Your task to perform on an android device: show emergency info Image 0: 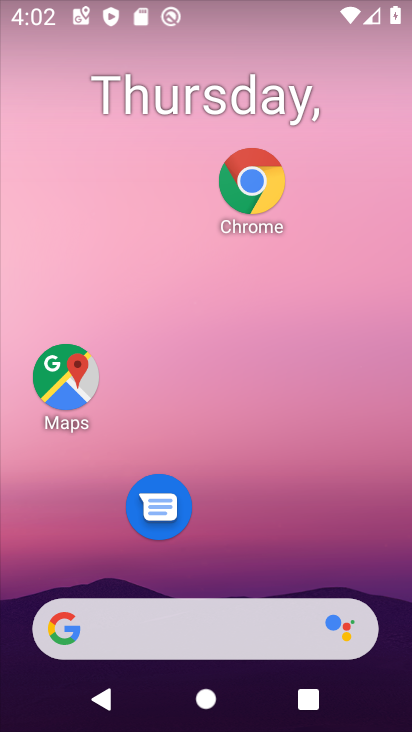
Step 0: drag from (258, 490) to (258, 183)
Your task to perform on an android device: show emergency info Image 1: 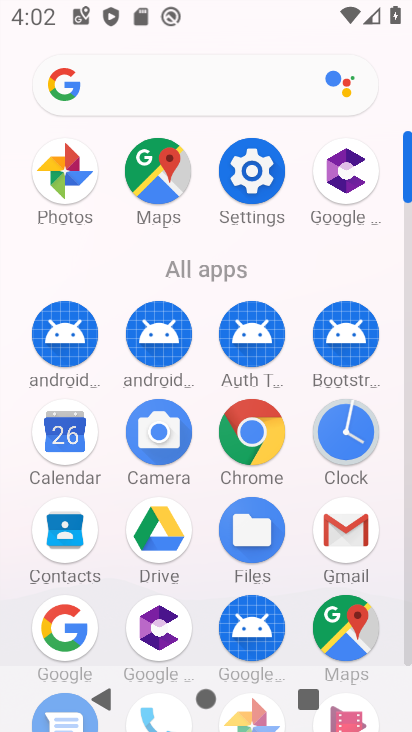
Step 1: click (259, 162)
Your task to perform on an android device: show emergency info Image 2: 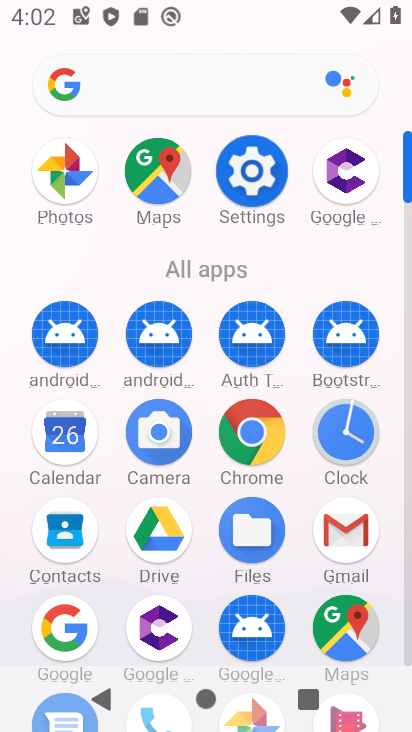
Step 2: click (258, 164)
Your task to perform on an android device: show emergency info Image 3: 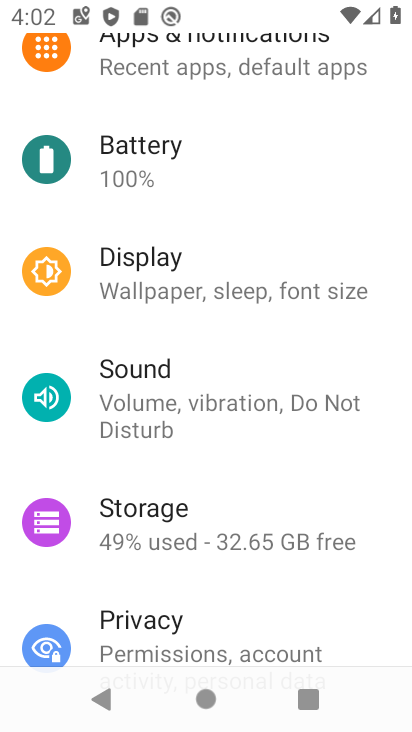
Step 3: drag from (173, 484) to (159, 131)
Your task to perform on an android device: show emergency info Image 4: 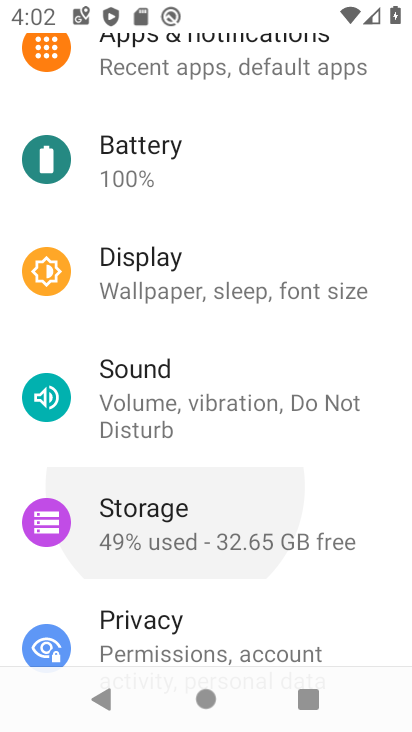
Step 4: drag from (177, 483) to (178, 134)
Your task to perform on an android device: show emergency info Image 5: 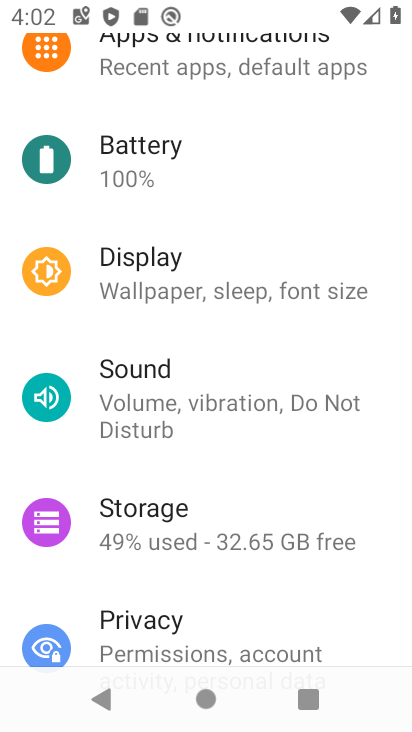
Step 5: drag from (182, 176) to (182, 136)
Your task to perform on an android device: show emergency info Image 6: 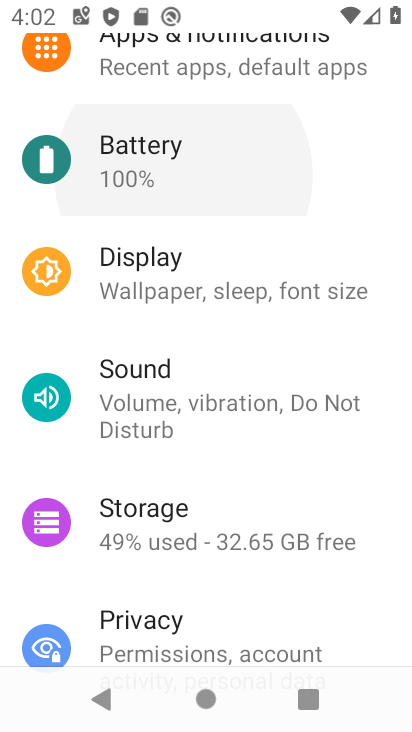
Step 6: drag from (199, 448) to (202, 138)
Your task to perform on an android device: show emergency info Image 7: 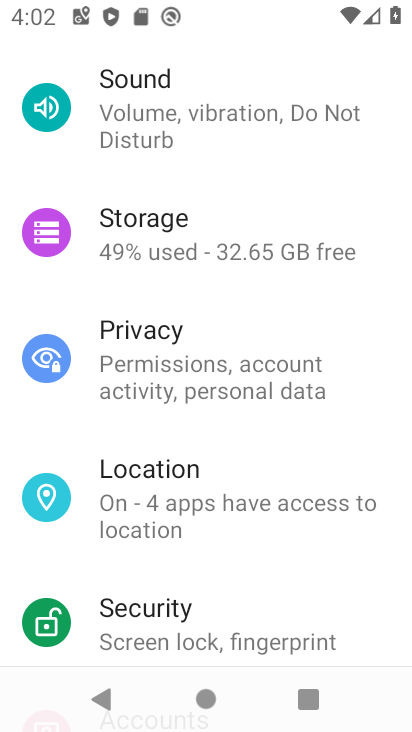
Step 7: drag from (210, 347) to (210, 218)
Your task to perform on an android device: show emergency info Image 8: 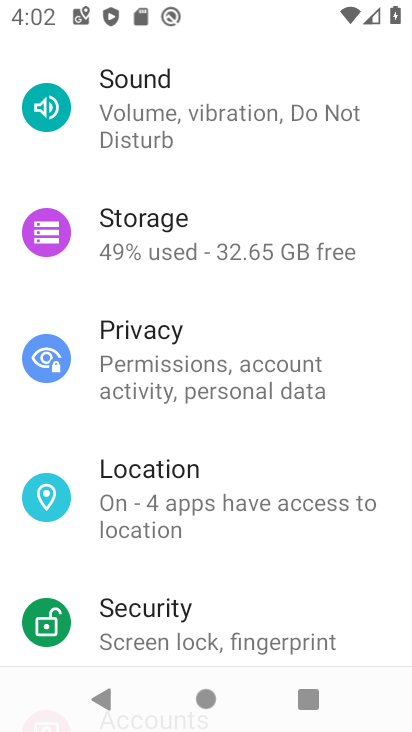
Step 8: drag from (213, 516) to (215, 160)
Your task to perform on an android device: show emergency info Image 9: 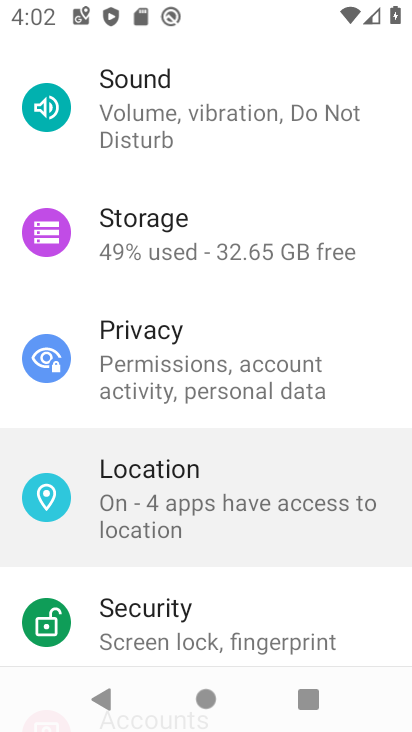
Step 9: drag from (183, 503) to (183, 127)
Your task to perform on an android device: show emergency info Image 10: 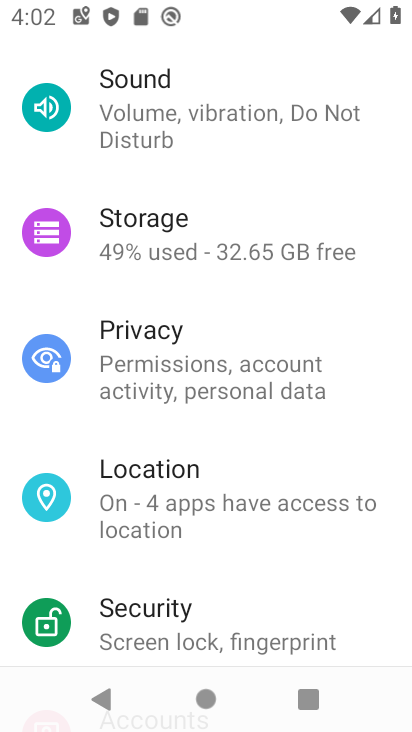
Step 10: drag from (190, 469) to (196, 81)
Your task to perform on an android device: show emergency info Image 11: 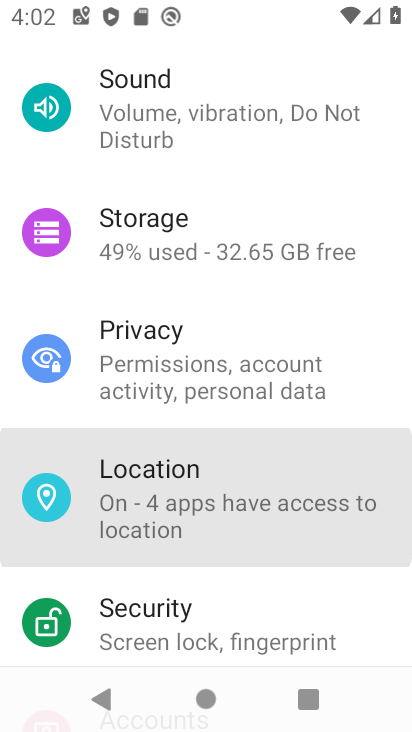
Step 11: drag from (232, 411) to (223, 167)
Your task to perform on an android device: show emergency info Image 12: 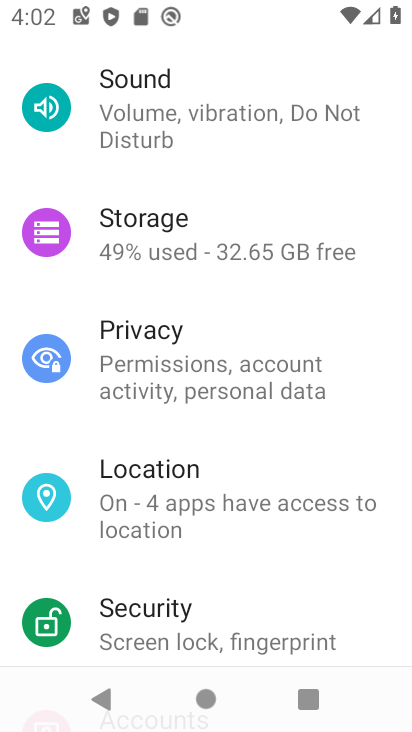
Step 12: click (167, 255)
Your task to perform on an android device: show emergency info Image 13: 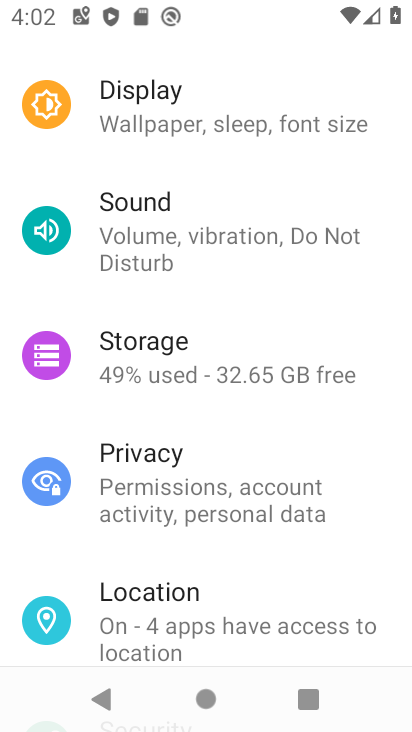
Step 13: drag from (198, 485) to (198, 127)
Your task to perform on an android device: show emergency info Image 14: 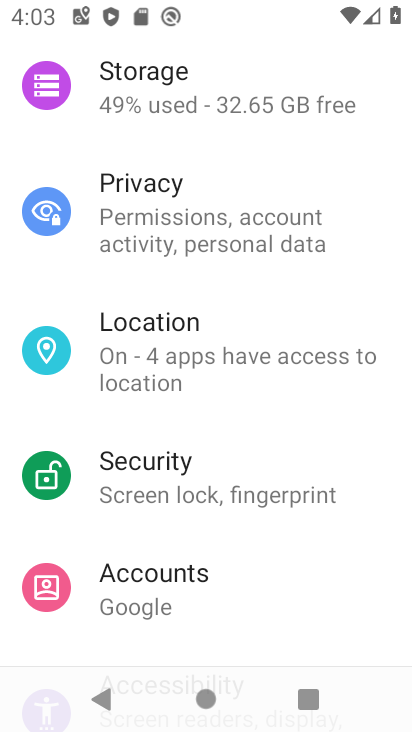
Step 14: drag from (189, 540) to (153, 82)
Your task to perform on an android device: show emergency info Image 15: 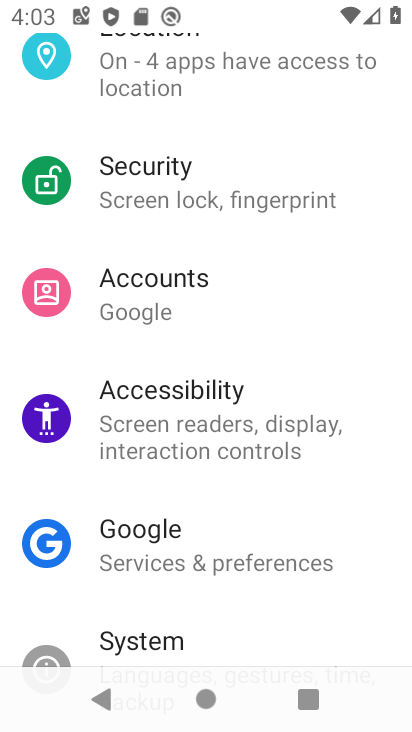
Step 15: drag from (157, 549) to (157, 156)
Your task to perform on an android device: show emergency info Image 16: 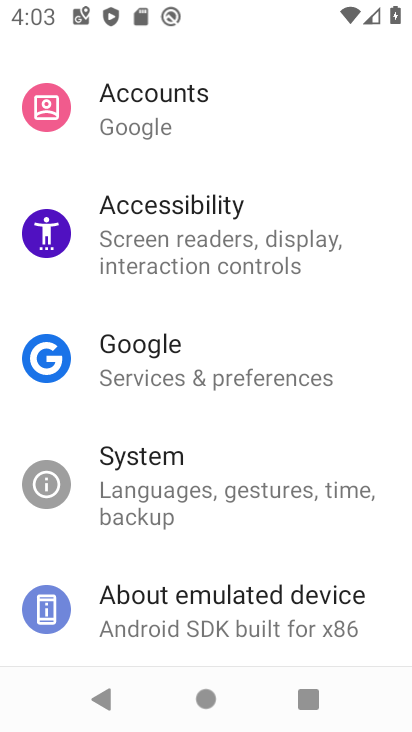
Step 16: drag from (145, 493) to (145, 225)
Your task to perform on an android device: show emergency info Image 17: 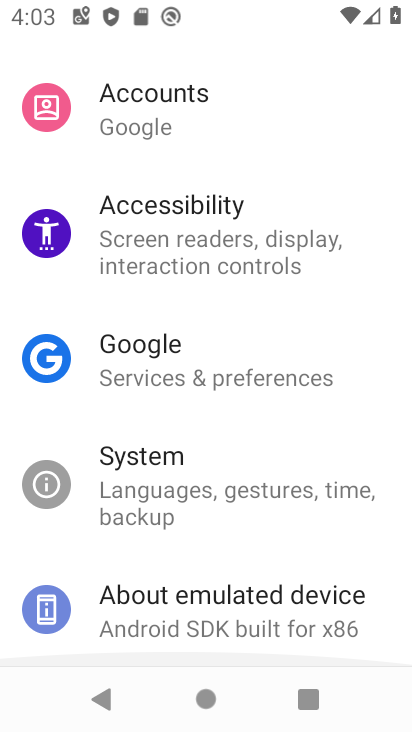
Step 17: click (183, 597)
Your task to perform on an android device: show emergency info Image 18: 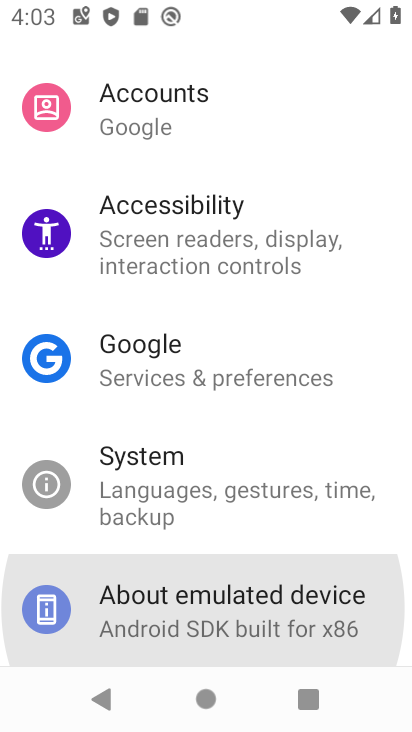
Step 18: click (183, 597)
Your task to perform on an android device: show emergency info Image 19: 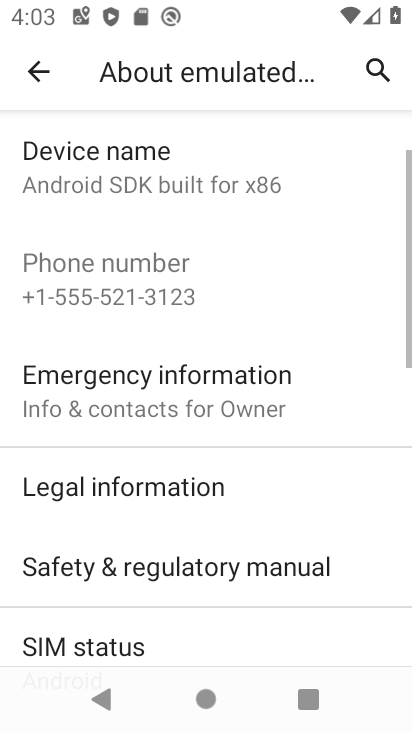
Step 19: click (196, 610)
Your task to perform on an android device: show emergency info Image 20: 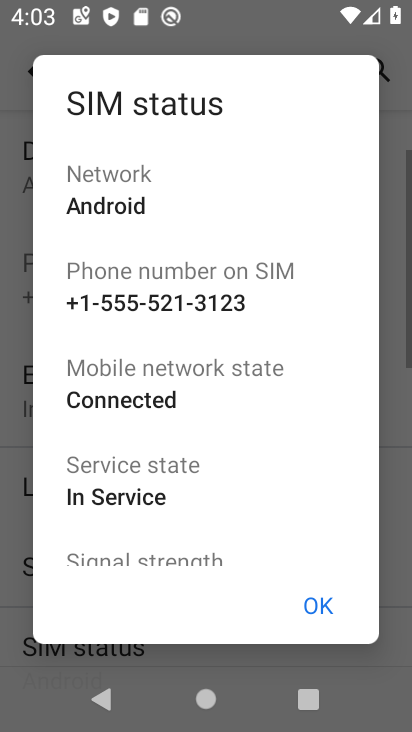
Step 20: task complete